Your task to perform on an android device: star an email in the gmail app Image 0: 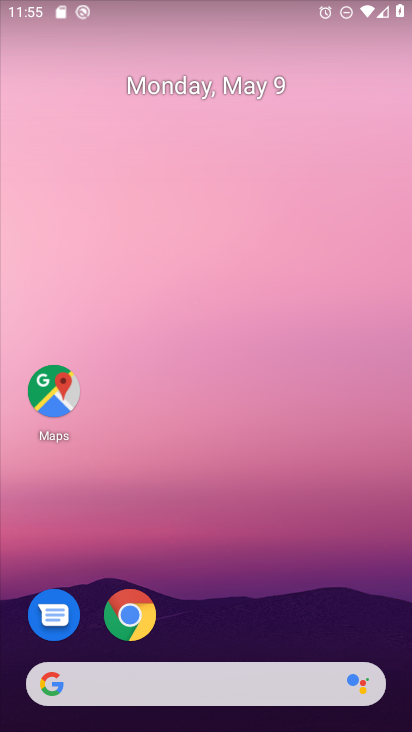
Step 0: drag from (239, 725) to (350, 246)
Your task to perform on an android device: star an email in the gmail app Image 1: 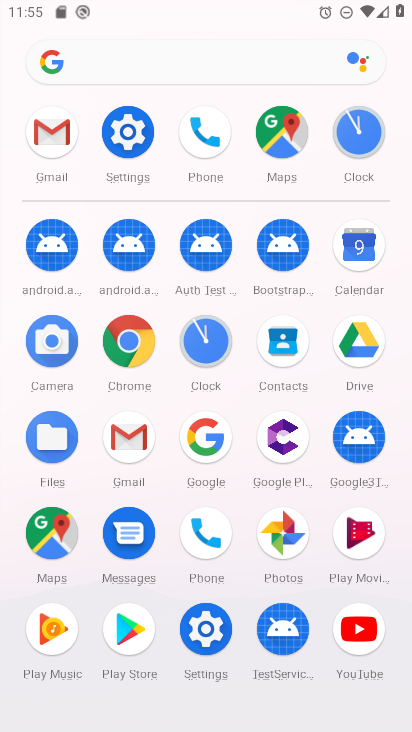
Step 1: click (131, 434)
Your task to perform on an android device: star an email in the gmail app Image 2: 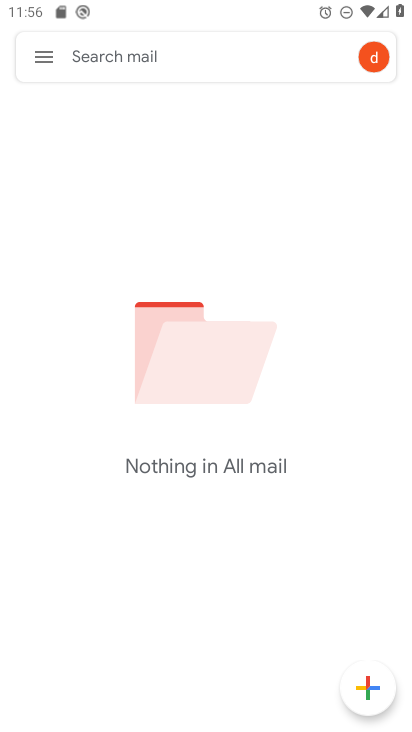
Step 2: click (48, 57)
Your task to perform on an android device: star an email in the gmail app Image 3: 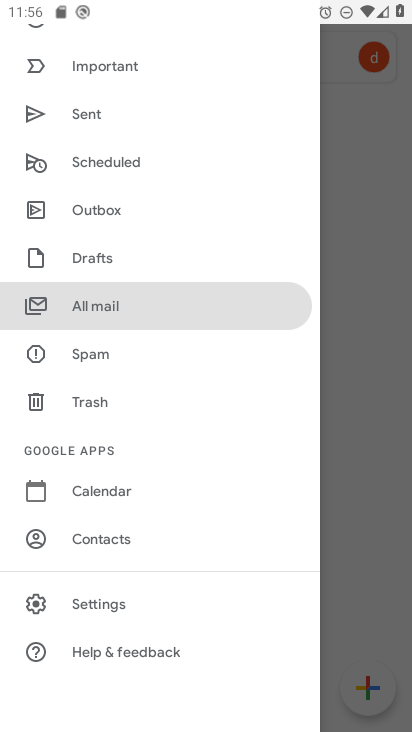
Step 3: drag from (107, 120) to (107, 280)
Your task to perform on an android device: star an email in the gmail app Image 4: 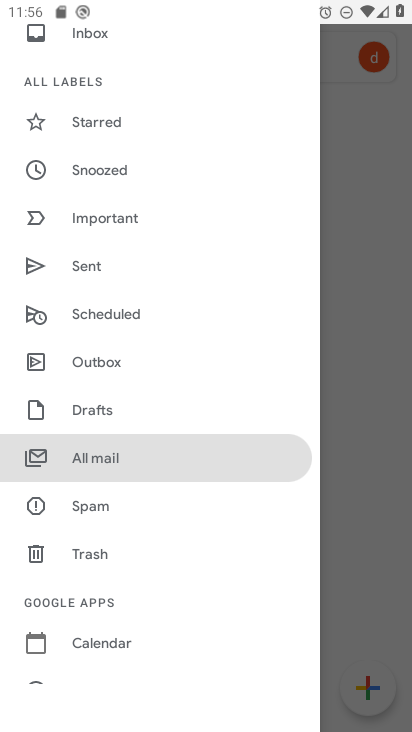
Step 4: click (110, 129)
Your task to perform on an android device: star an email in the gmail app Image 5: 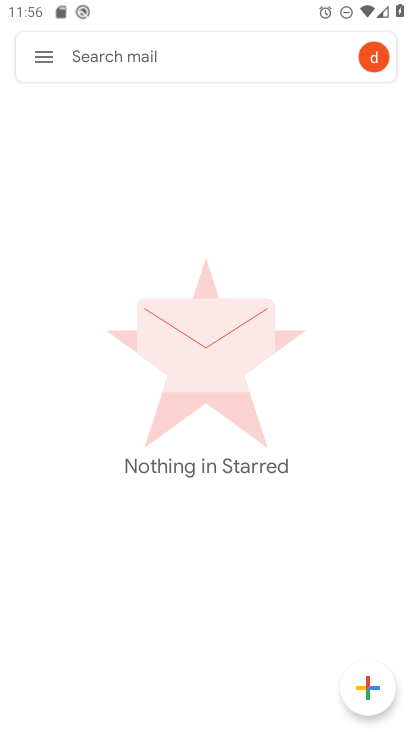
Step 5: task complete